Your task to perform on an android device: Open Google Maps Image 0: 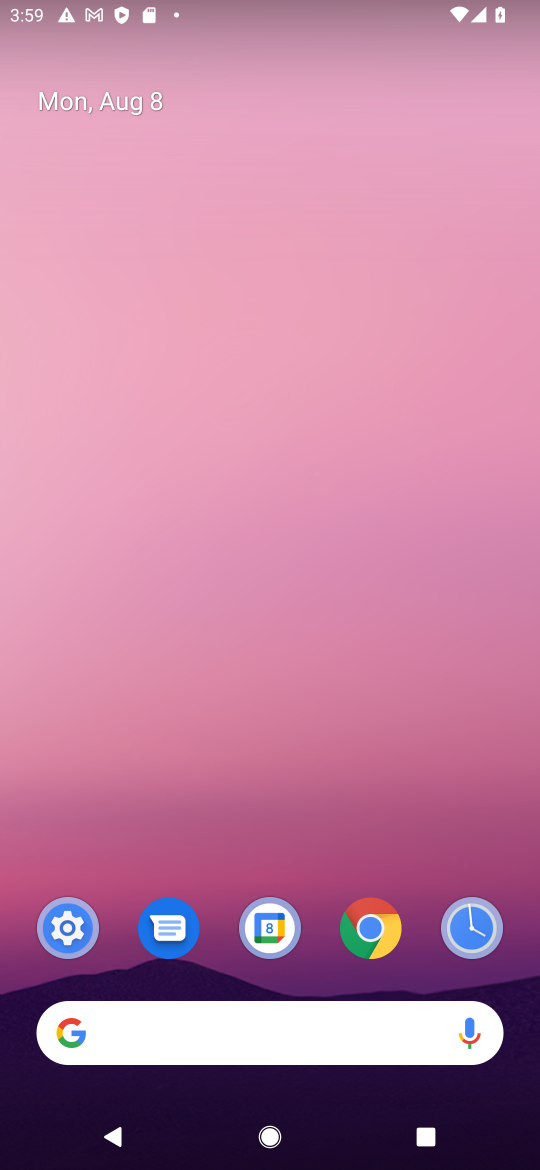
Step 0: drag from (405, 881) to (342, 274)
Your task to perform on an android device: Open Google Maps Image 1: 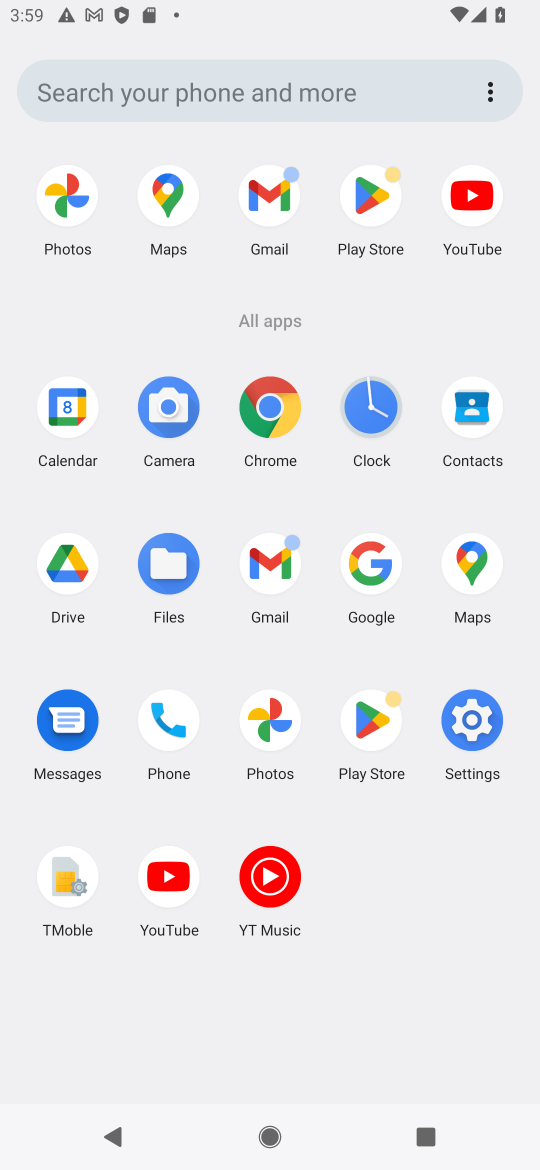
Step 1: click (172, 208)
Your task to perform on an android device: Open Google Maps Image 2: 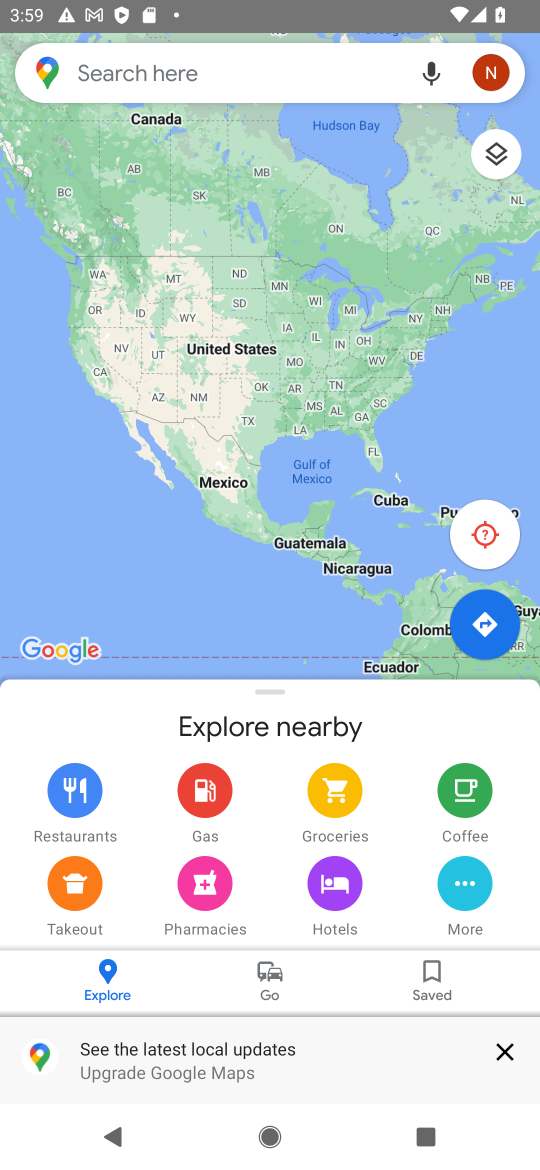
Step 2: task complete